Your task to perform on an android device: What's the weather? Image 0: 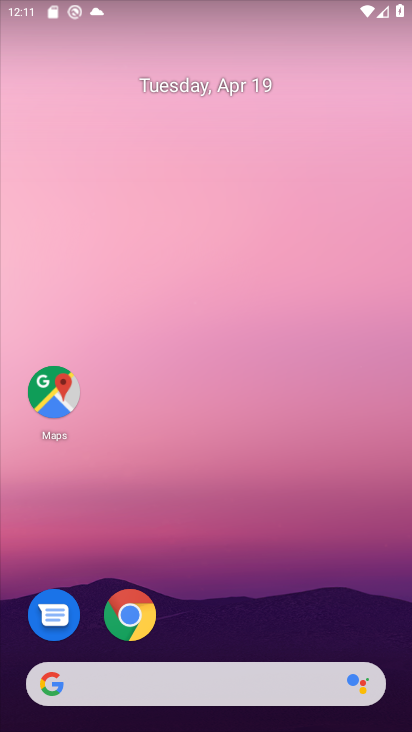
Step 0: drag from (228, 650) to (286, 261)
Your task to perform on an android device: What's the weather? Image 1: 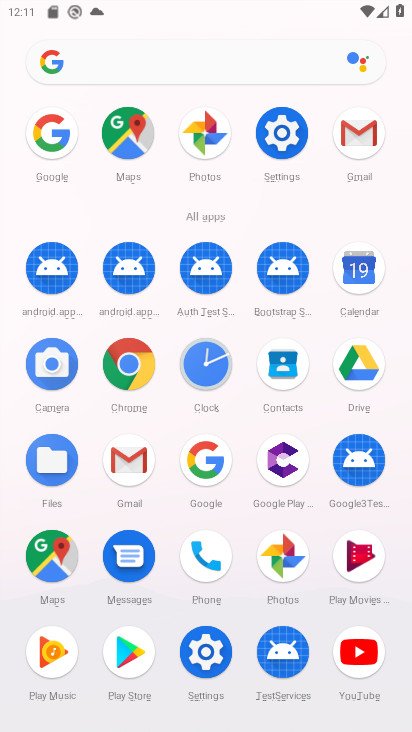
Step 1: click (199, 464)
Your task to perform on an android device: What's the weather? Image 2: 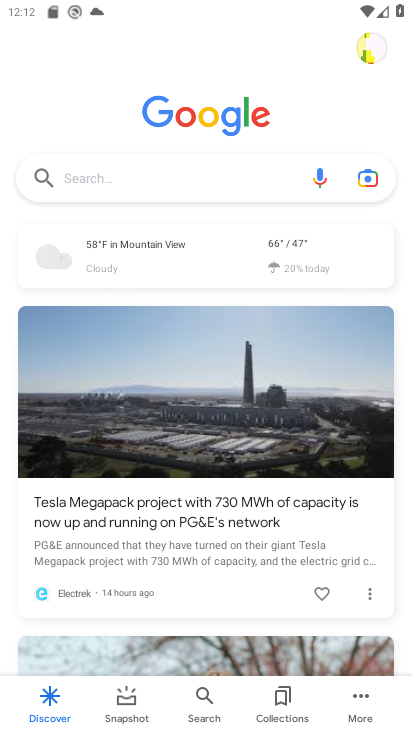
Step 2: click (188, 252)
Your task to perform on an android device: What's the weather? Image 3: 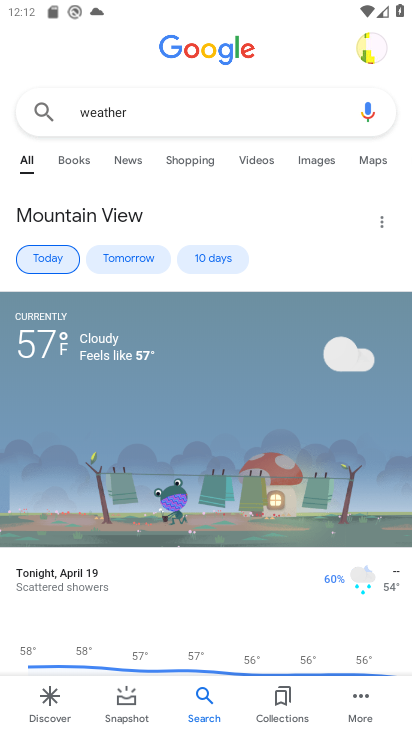
Step 3: task complete